Your task to perform on an android device: What's on my calendar tomorrow? Image 0: 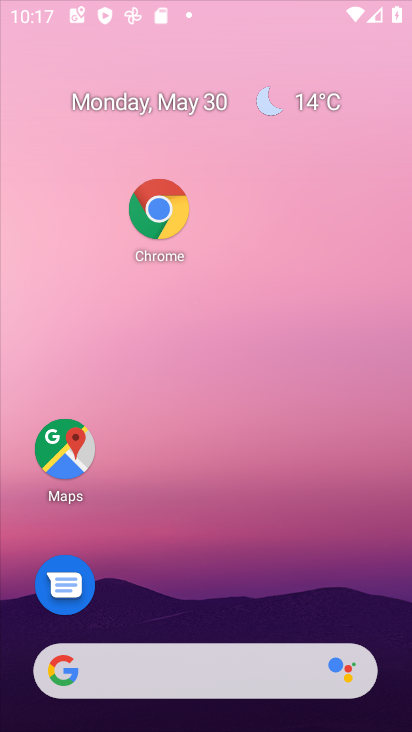
Step 0: click (387, 246)
Your task to perform on an android device: What's on my calendar tomorrow? Image 1: 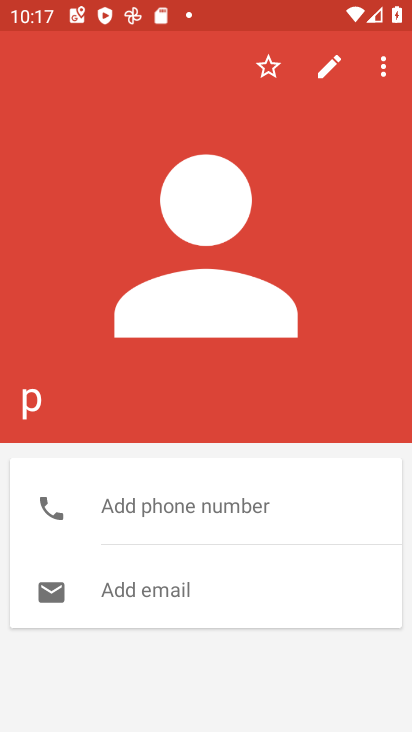
Step 1: press home button
Your task to perform on an android device: What's on my calendar tomorrow? Image 2: 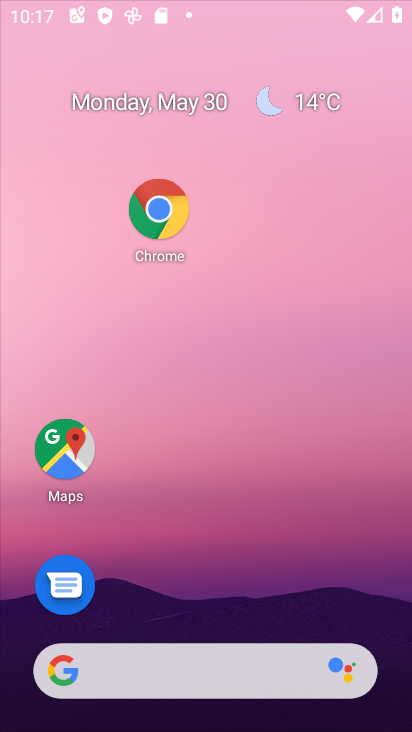
Step 2: drag from (219, 628) to (136, 2)
Your task to perform on an android device: What's on my calendar tomorrow? Image 3: 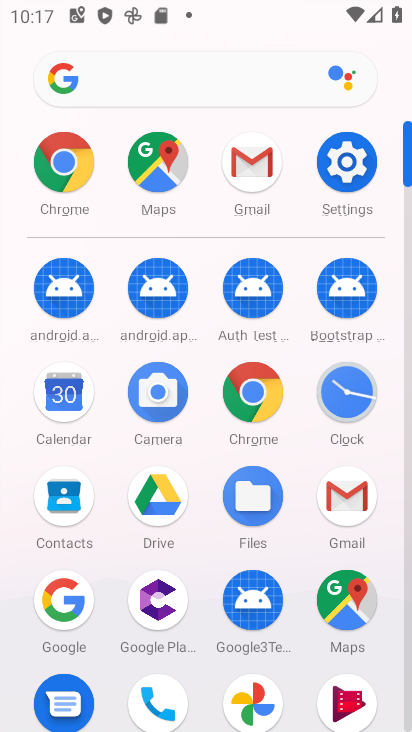
Step 3: click (68, 385)
Your task to perform on an android device: What's on my calendar tomorrow? Image 4: 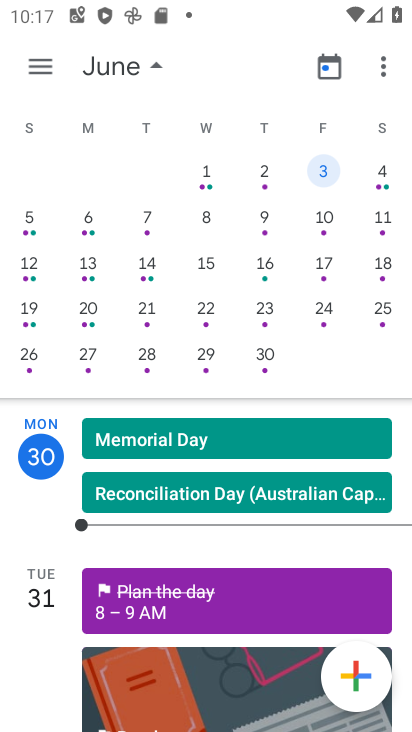
Step 4: drag from (46, 308) to (410, 198)
Your task to perform on an android device: What's on my calendar tomorrow? Image 5: 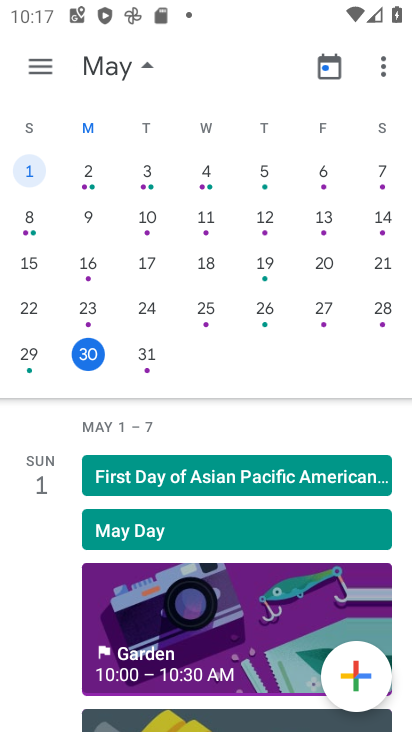
Step 5: click (139, 354)
Your task to perform on an android device: What's on my calendar tomorrow? Image 6: 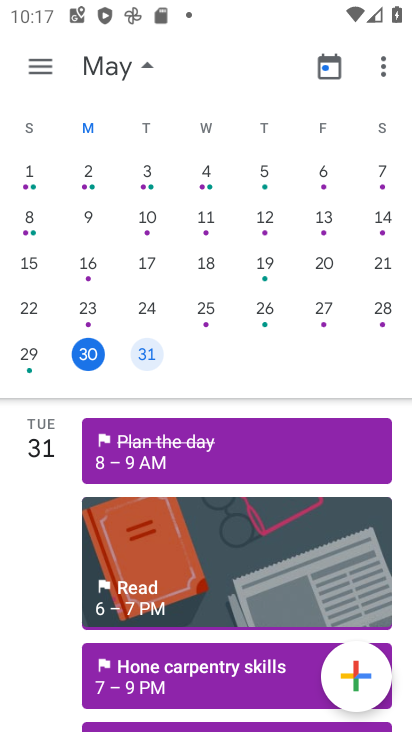
Step 6: task complete